Your task to perform on an android device: Go to wifi settings Image 0: 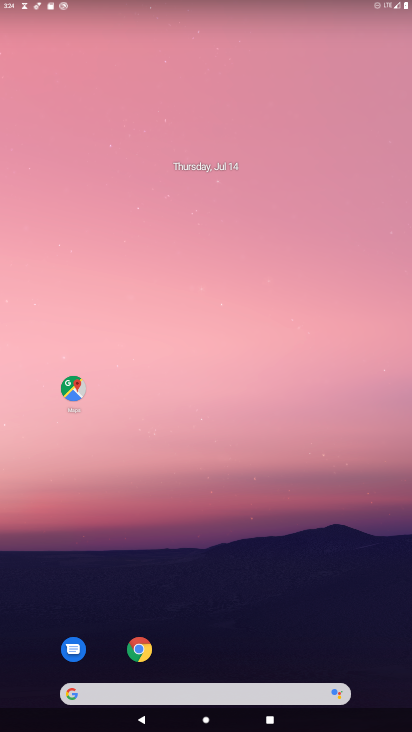
Step 0: drag from (300, 654) to (402, 123)
Your task to perform on an android device: Go to wifi settings Image 1: 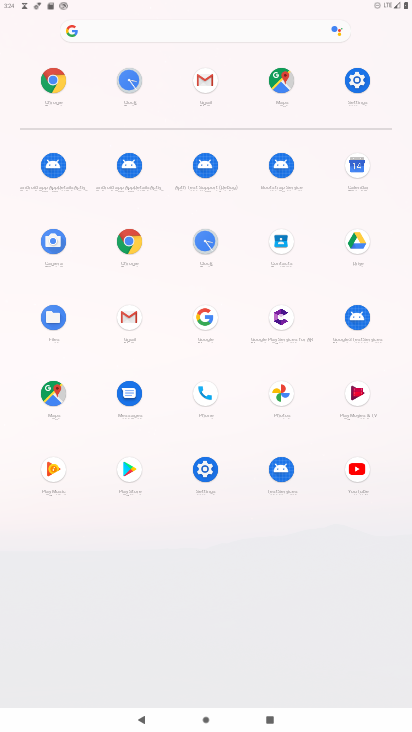
Step 1: click (358, 82)
Your task to perform on an android device: Go to wifi settings Image 2: 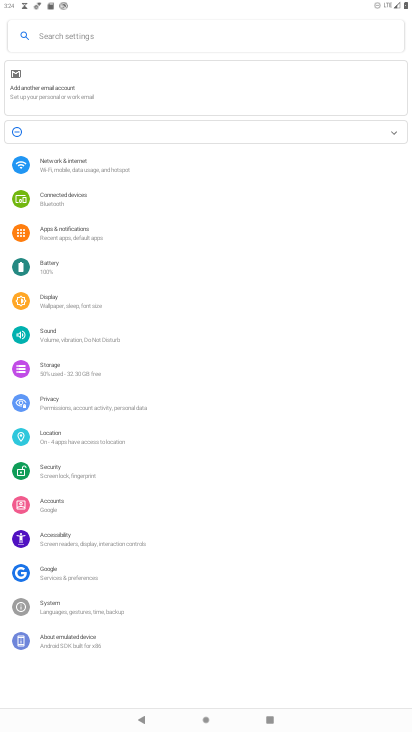
Step 2: click (120, 168)
Your task to perform on an android device: Go to wifi settings Image 3: 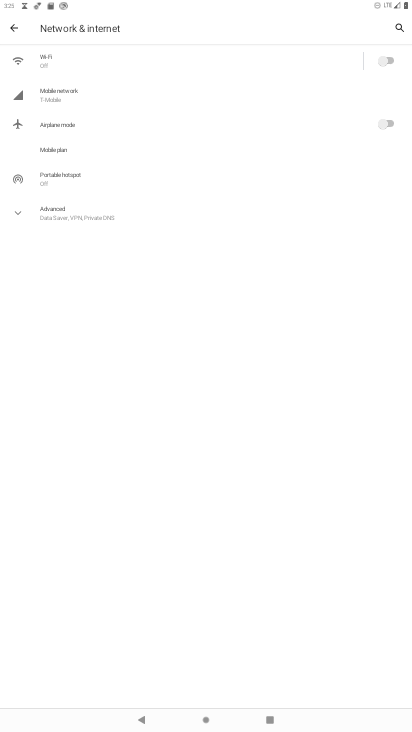
Step 3: click (143, 57)
Your task to perform on an android device: Go to wifi settings Image 4: 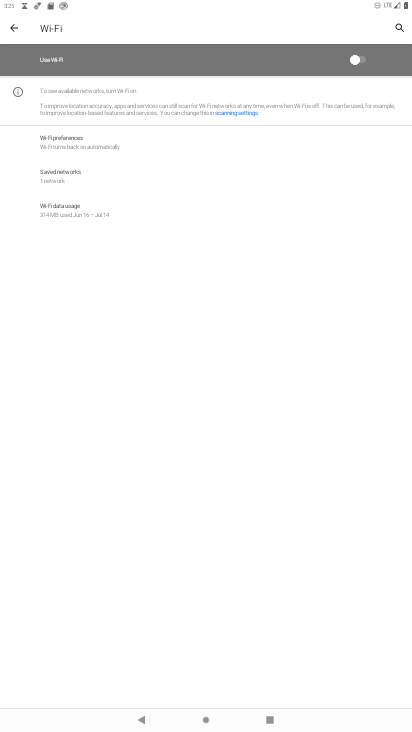
Step 4: task complete